Your task to perform on an android device: Add "usb-b" to the cart on bestbuy.com Image 0: 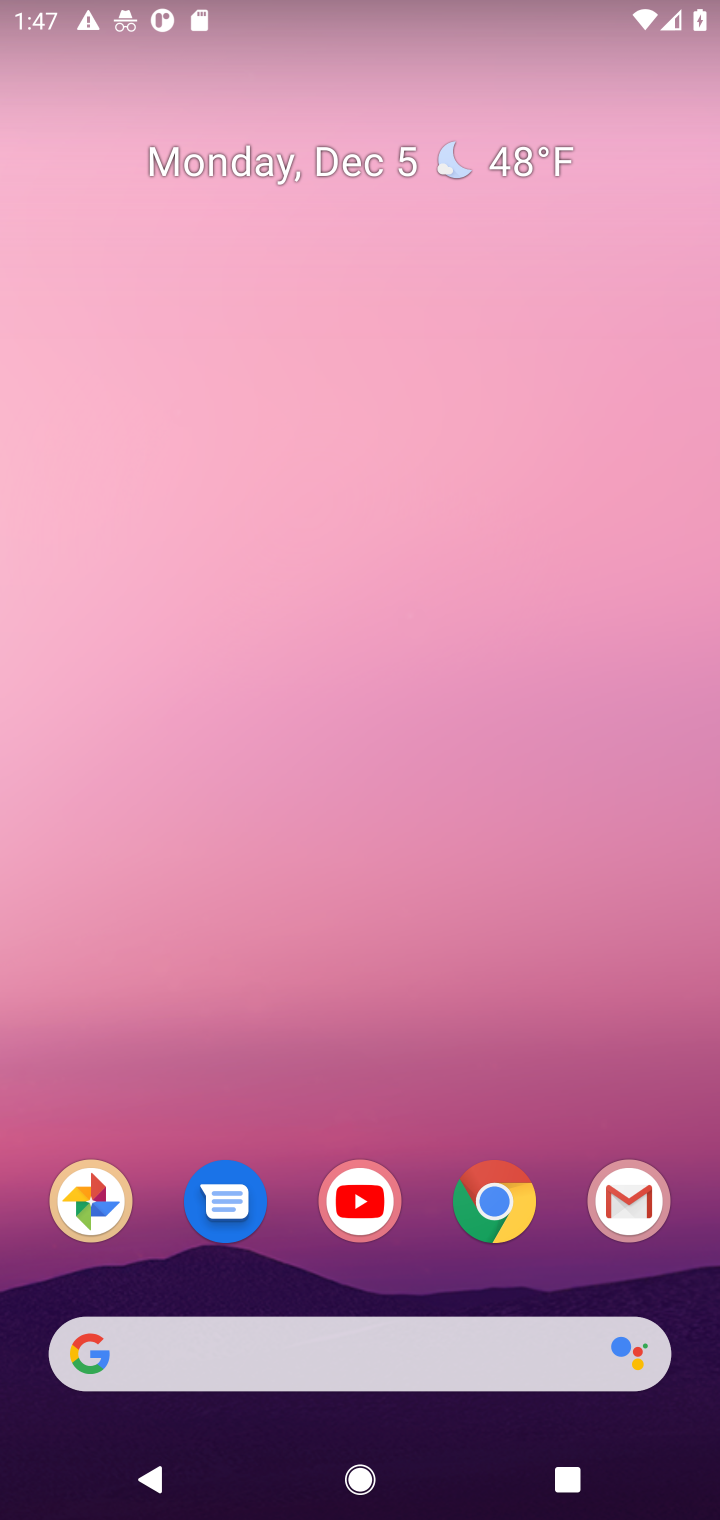
Step 0: click (478, 1198)
Your task to perform on an android device: Add "usb-b" to the cart on bestbuy.com Image 1: 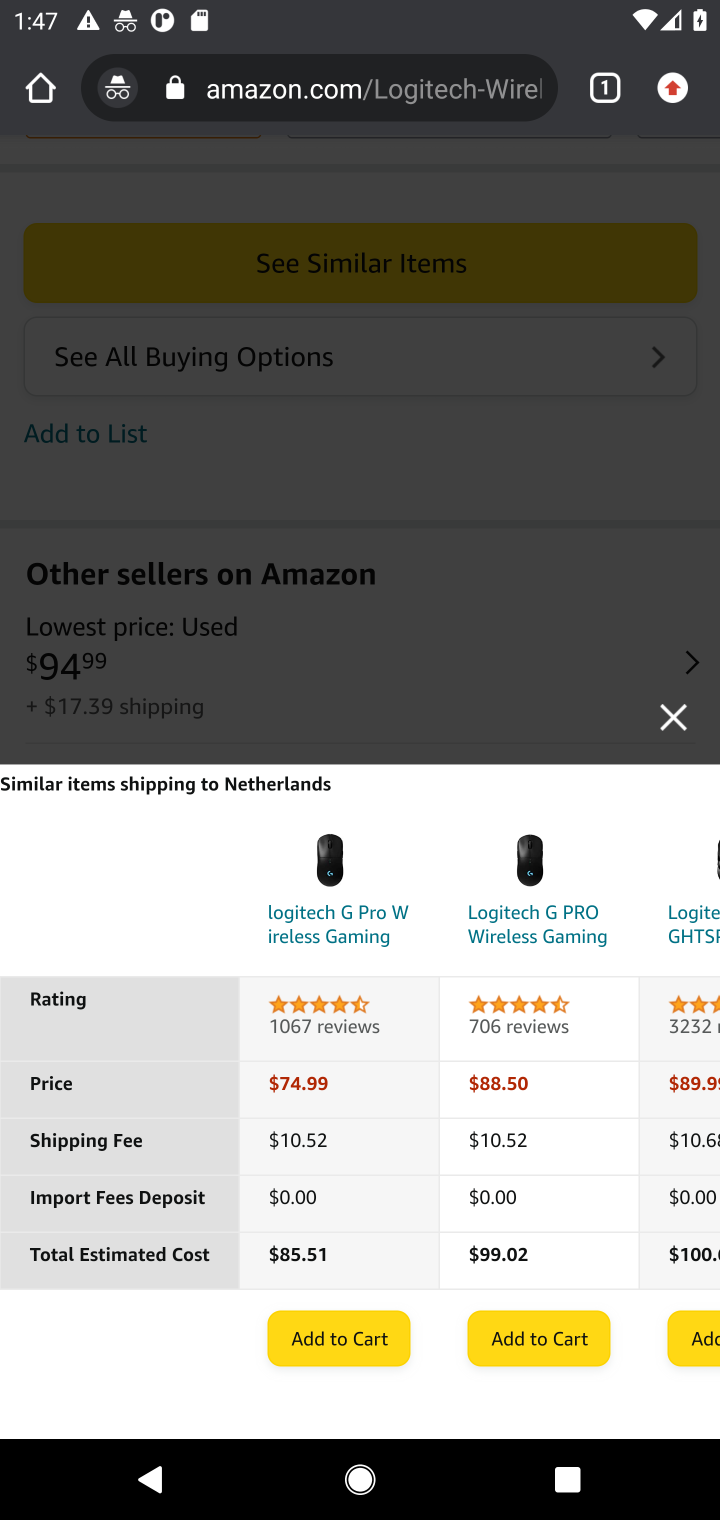
Step 1: click (469, 75)
Your task to perform on an android device: Add "usb-b" to the cart on bestbuy.com Image 2: 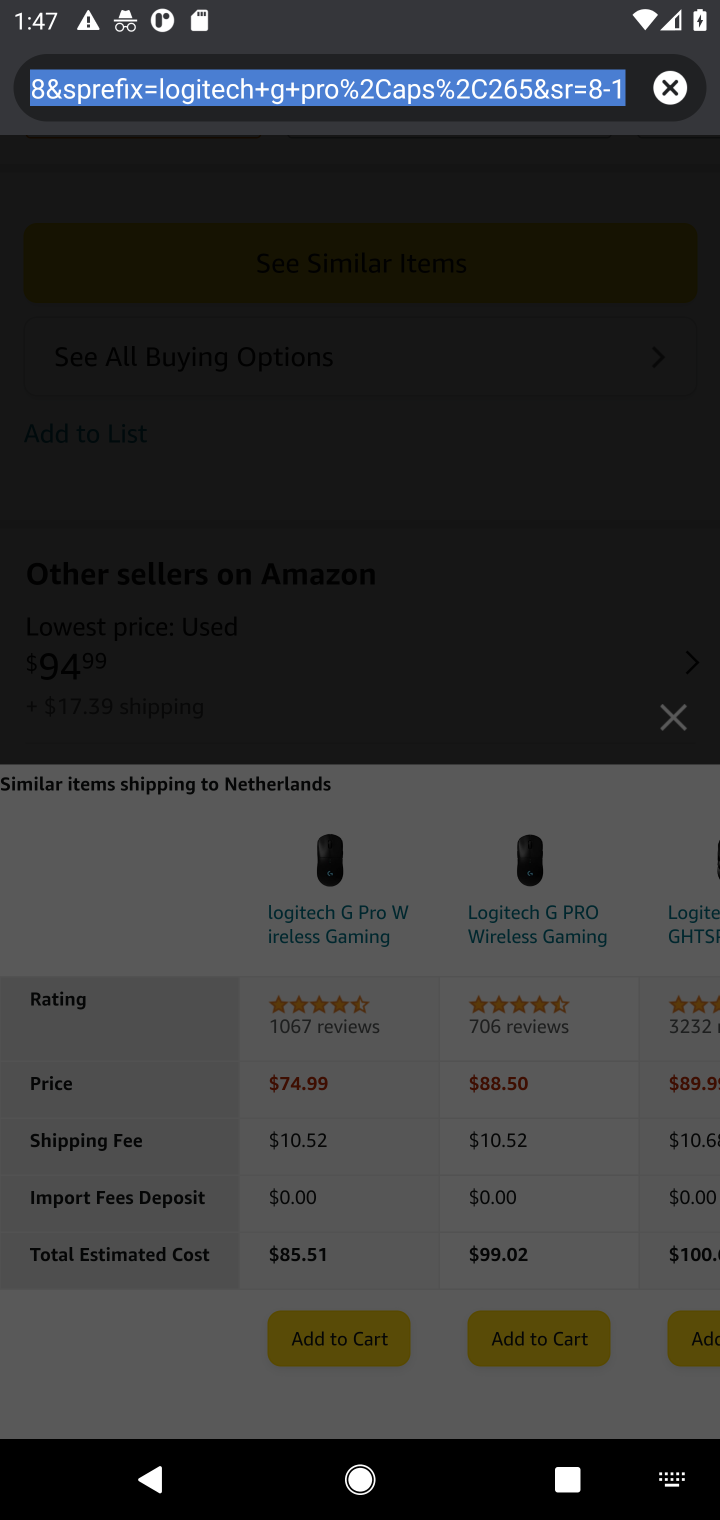
Step 2: click (678, 93)
Your task to perform on an android device: Add "usb-b" to the cart on bestbuy.com Image 3: 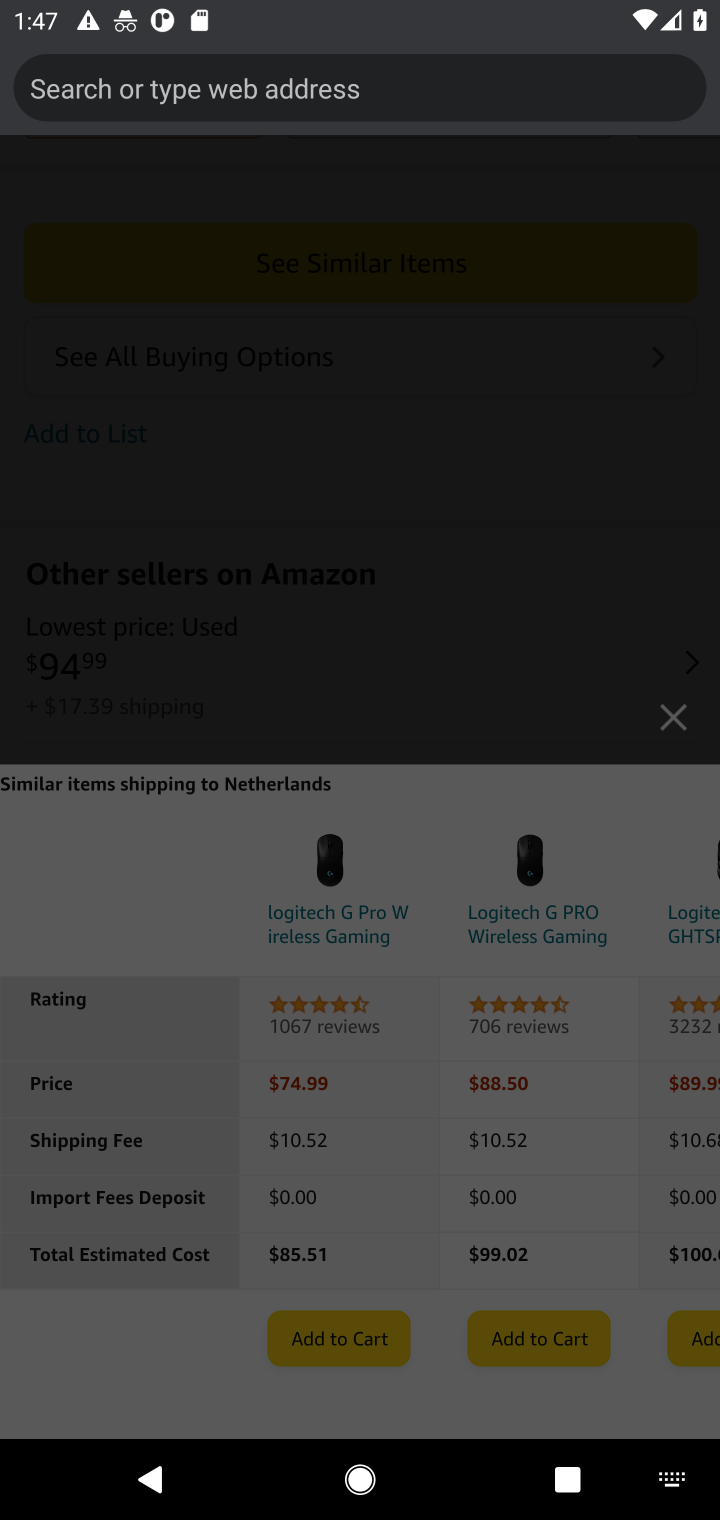
Step 3: type "bestbuy.com"
Your task to perform on an android device: Add "usb-b" to the cart on bestbuy.com Image 4: 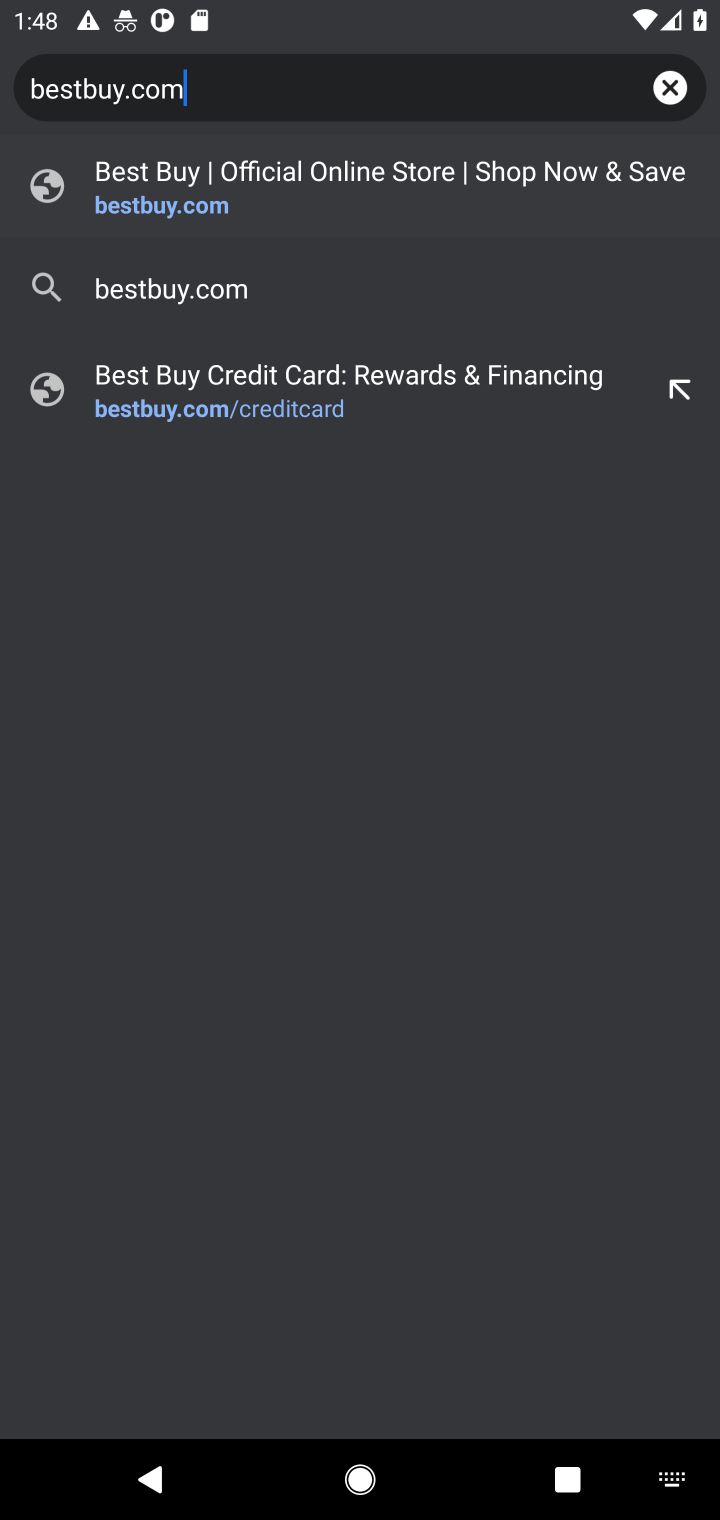
Step 4: click (171, 276)
Your task to perform on an android device: Add "usb-b" to the cart on bestbuy.com Image 5: 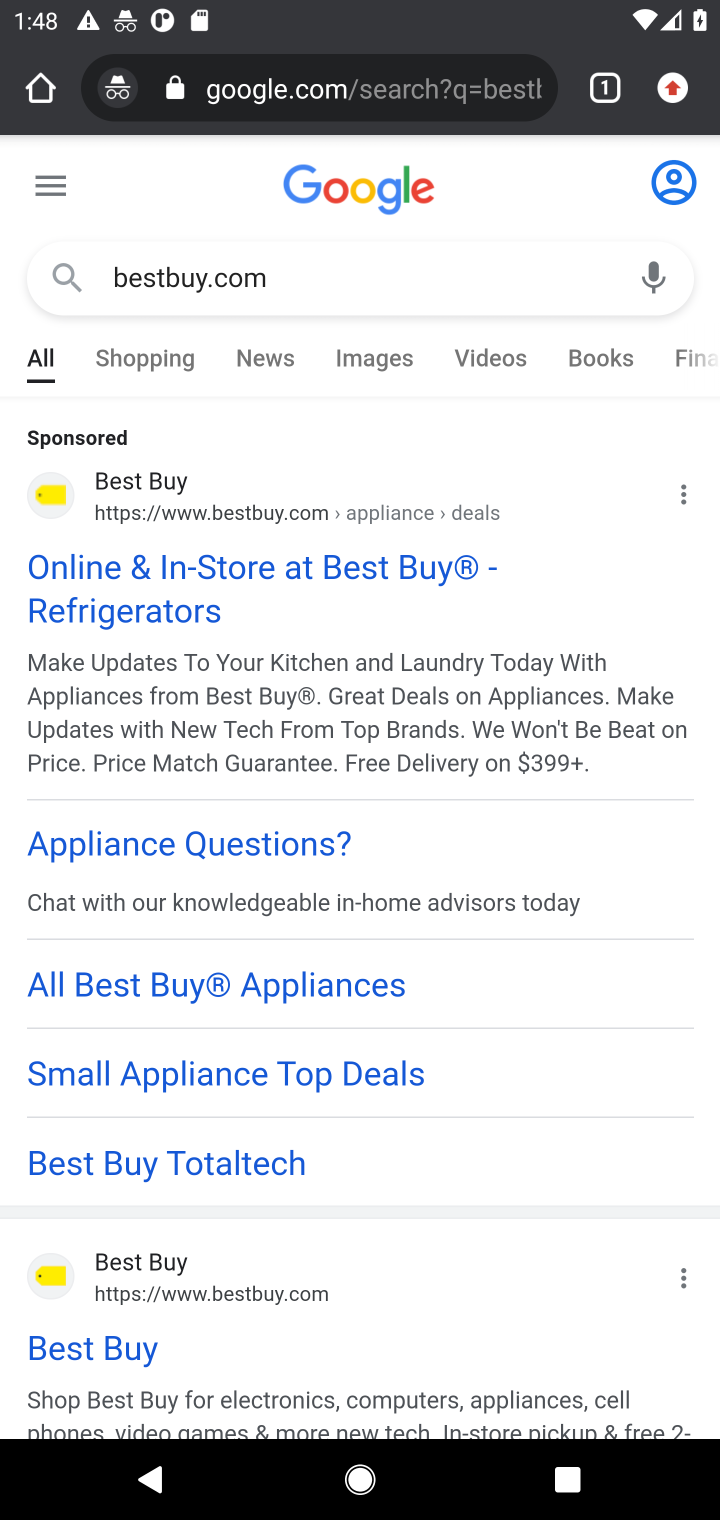
Step 5: click (168, 280)
Your task to perform on an android device: Add "usb-b" to the cart on bestbuy.com Image 6: 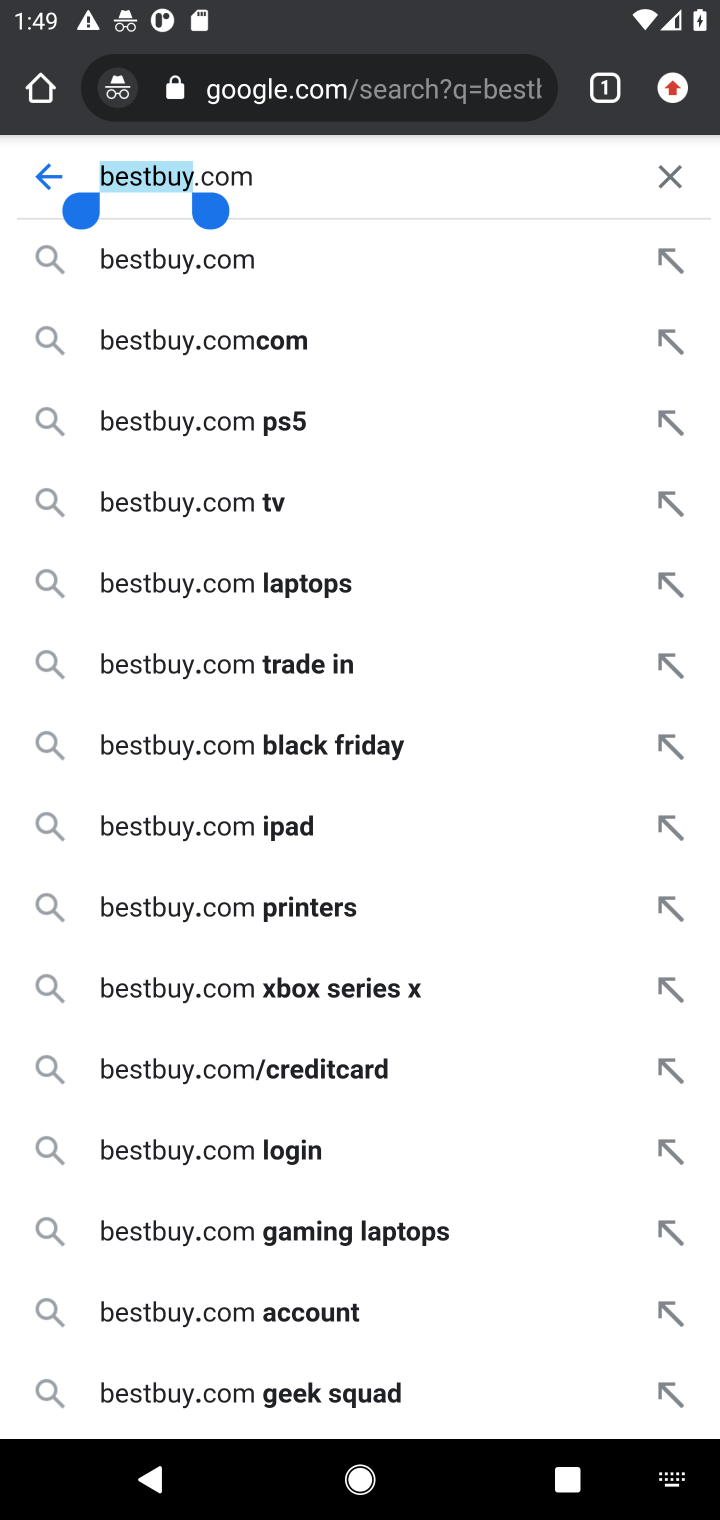
Step 6: click (165, 580)
Your task to perform on an android device: Add "usb-b" to the cart on bestbuy.com Image 7: 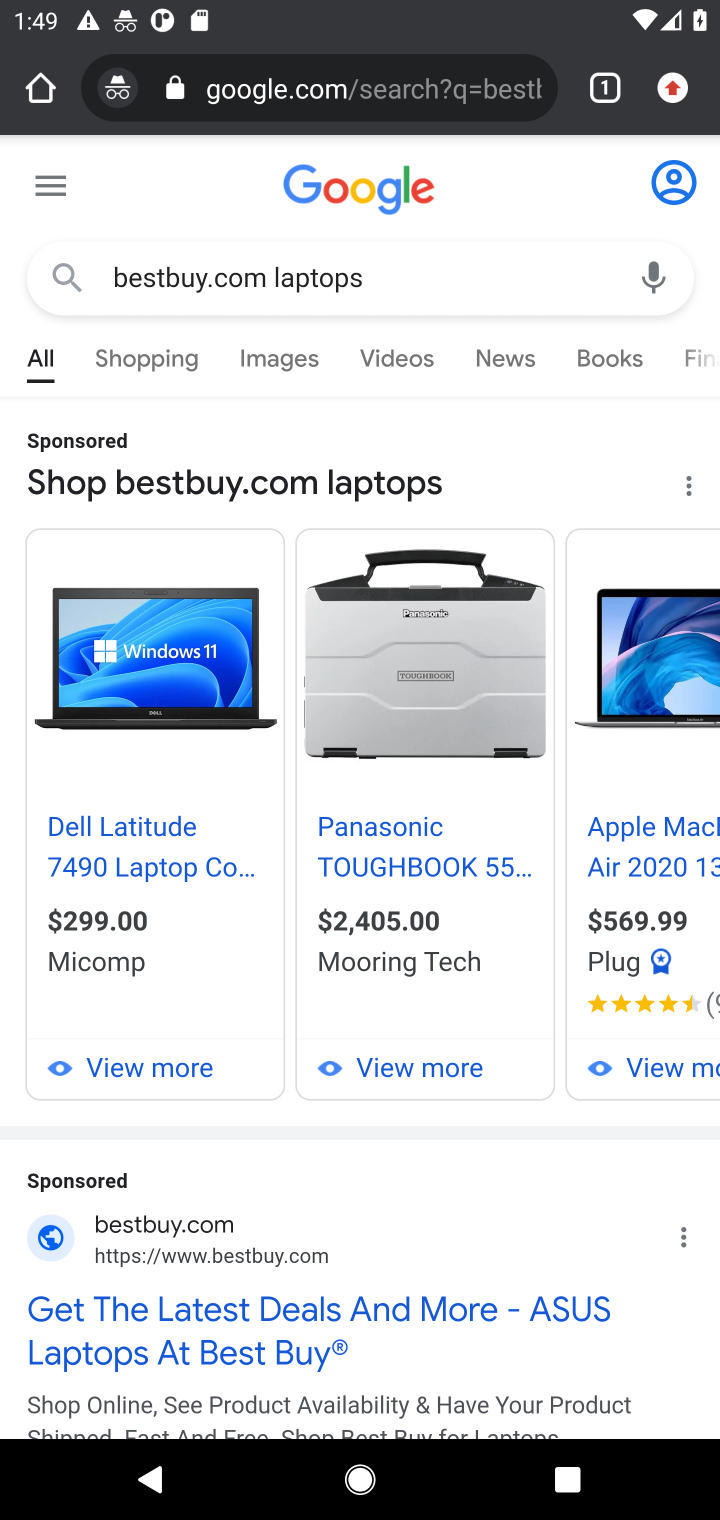
Step 7: click (276, 1340)
Your task to perform on an android device: Add "usb-b" to the cart on bestbuy.com Image 8: 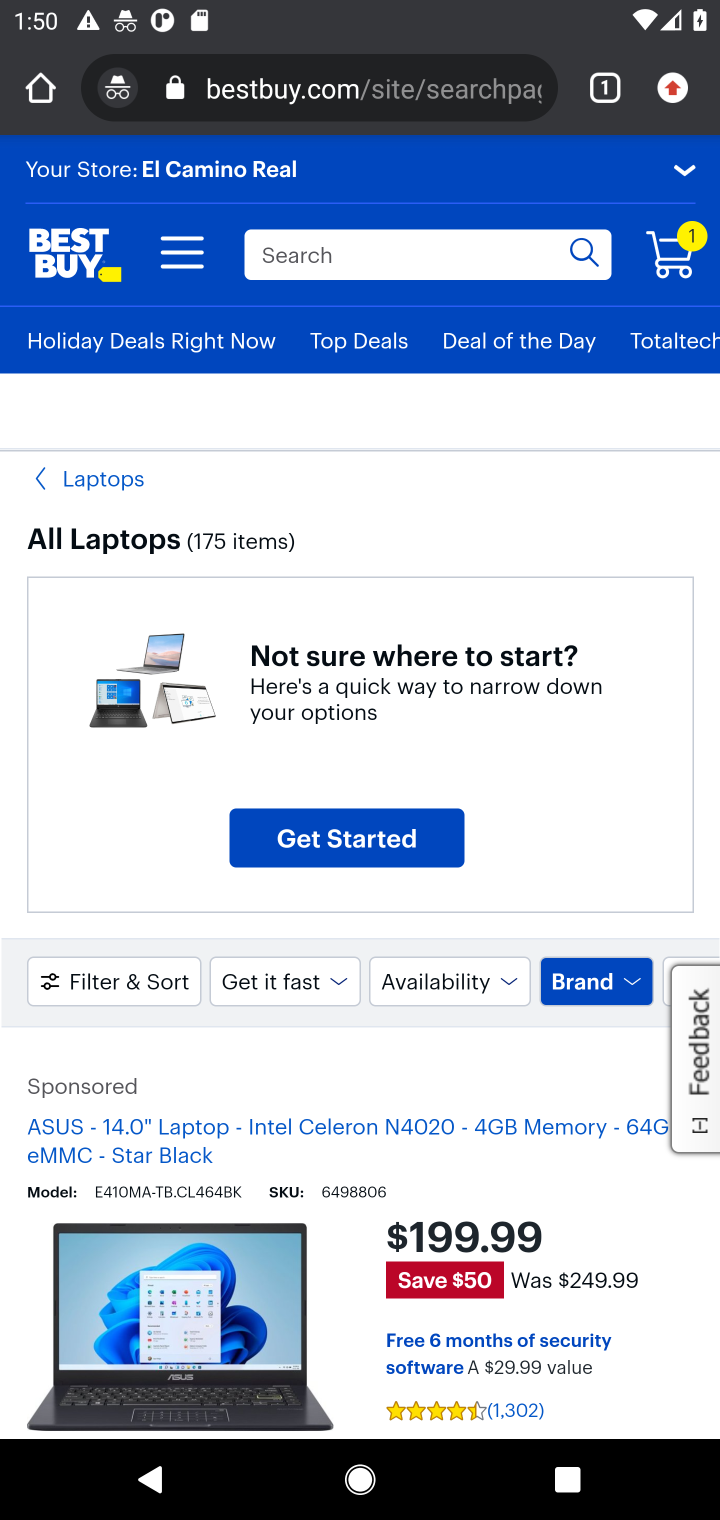
Step 8: click (322, 259)
Your task to perform on an android device: Add "usb-b" to the cart on bestbuy.com Image 9: 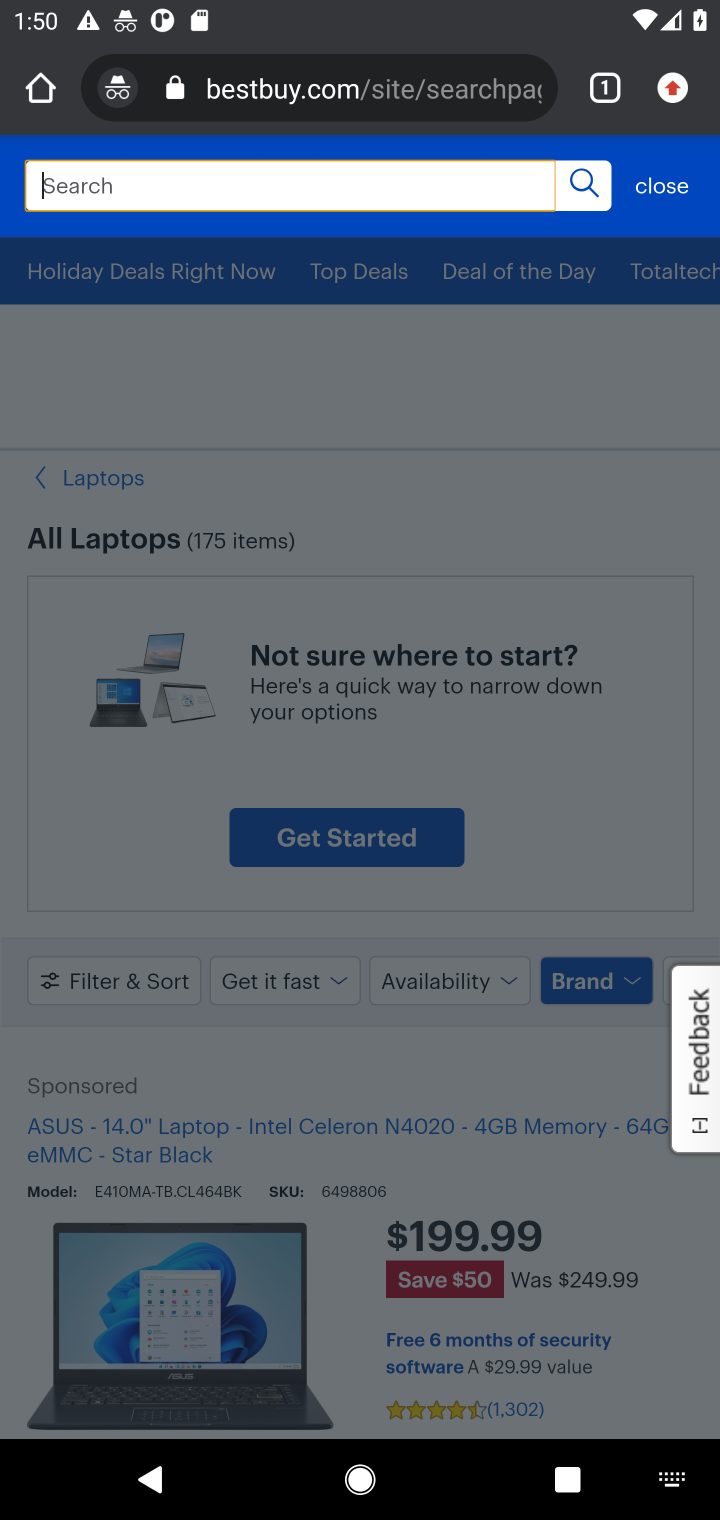
Step 9: type "usb-b"
Your task to perform on an android device: Add "usb-b" to the cart on bestbuy.com Image 10: 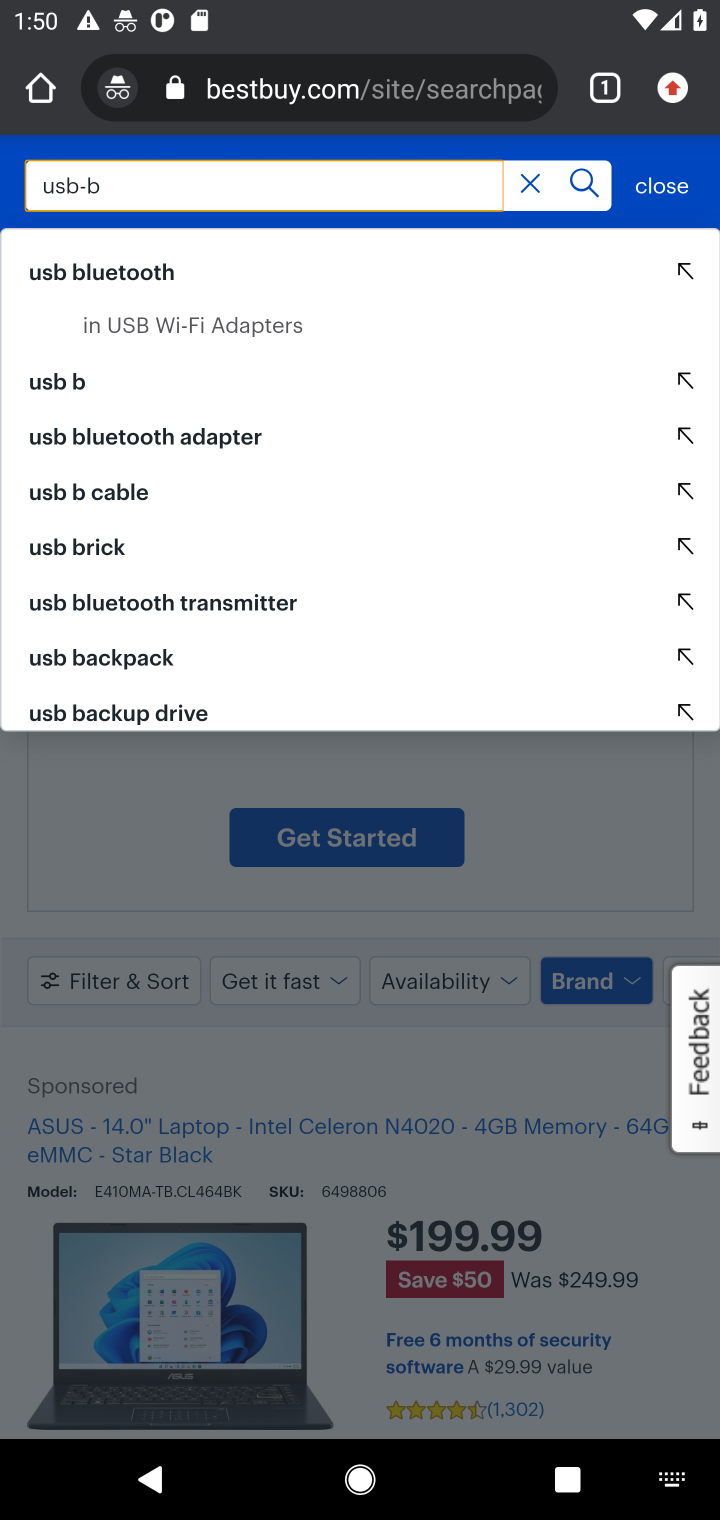
Step 10: click (590, 182)
Your task to perform on an android device: Add "usb-b" to the cart on bestbuy.com Image 11: 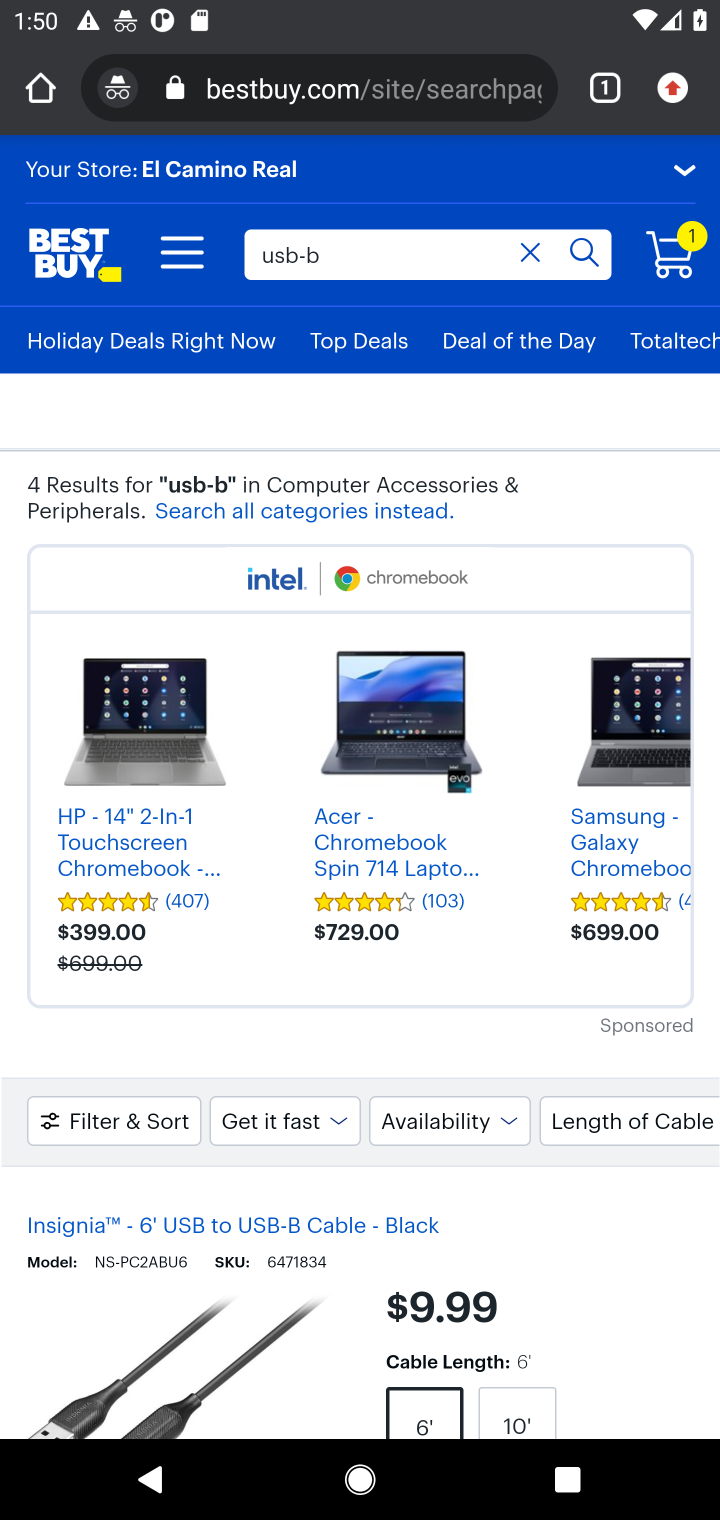
Step 11: drag from (543, 1163) to (463, 336)
Your task to perform on an android device: Add "usb-b" to the cart on bestbuy.com Image 12: 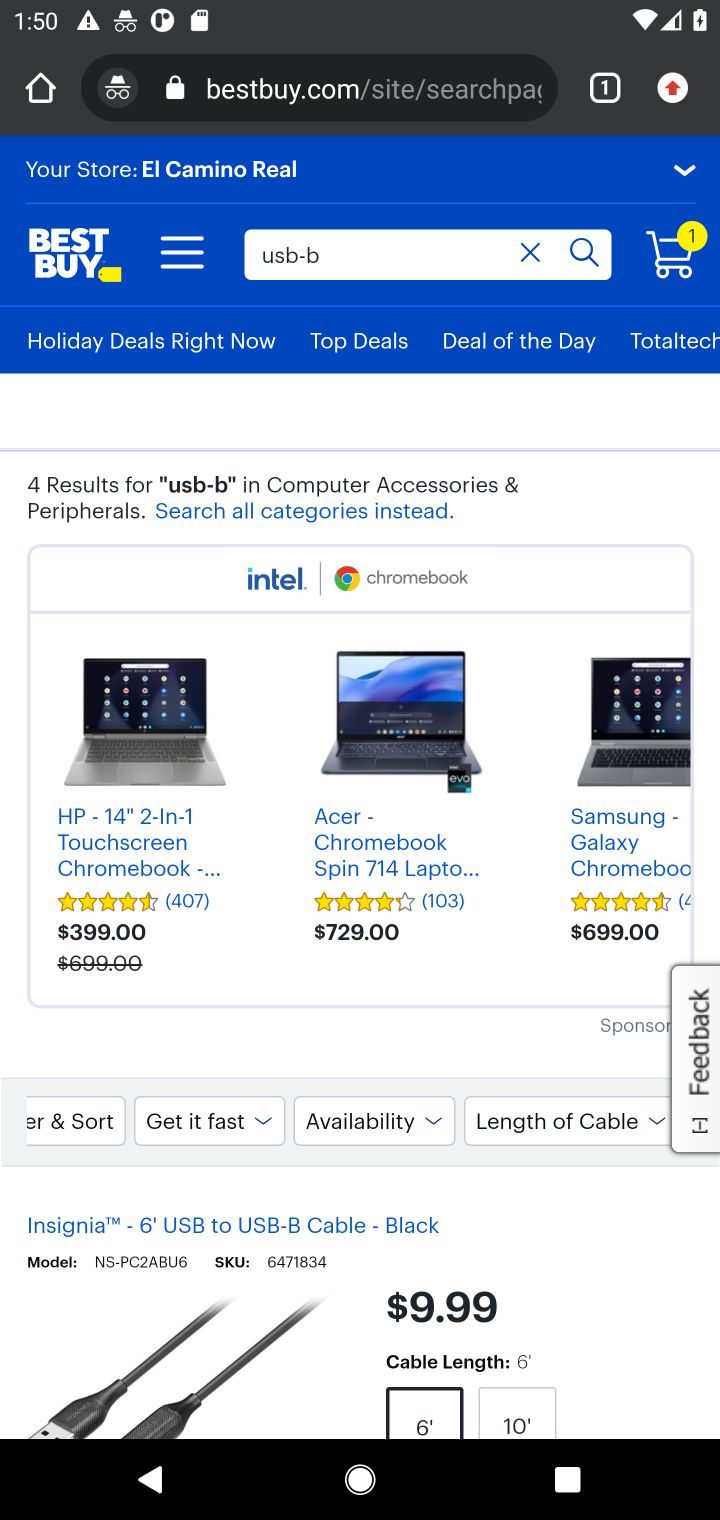
Step 12: drag from (520, 1255) to (378, 409)
Your task to perform on an android device: Add "usb-b" to the cart on bestbuy.com Image 13: 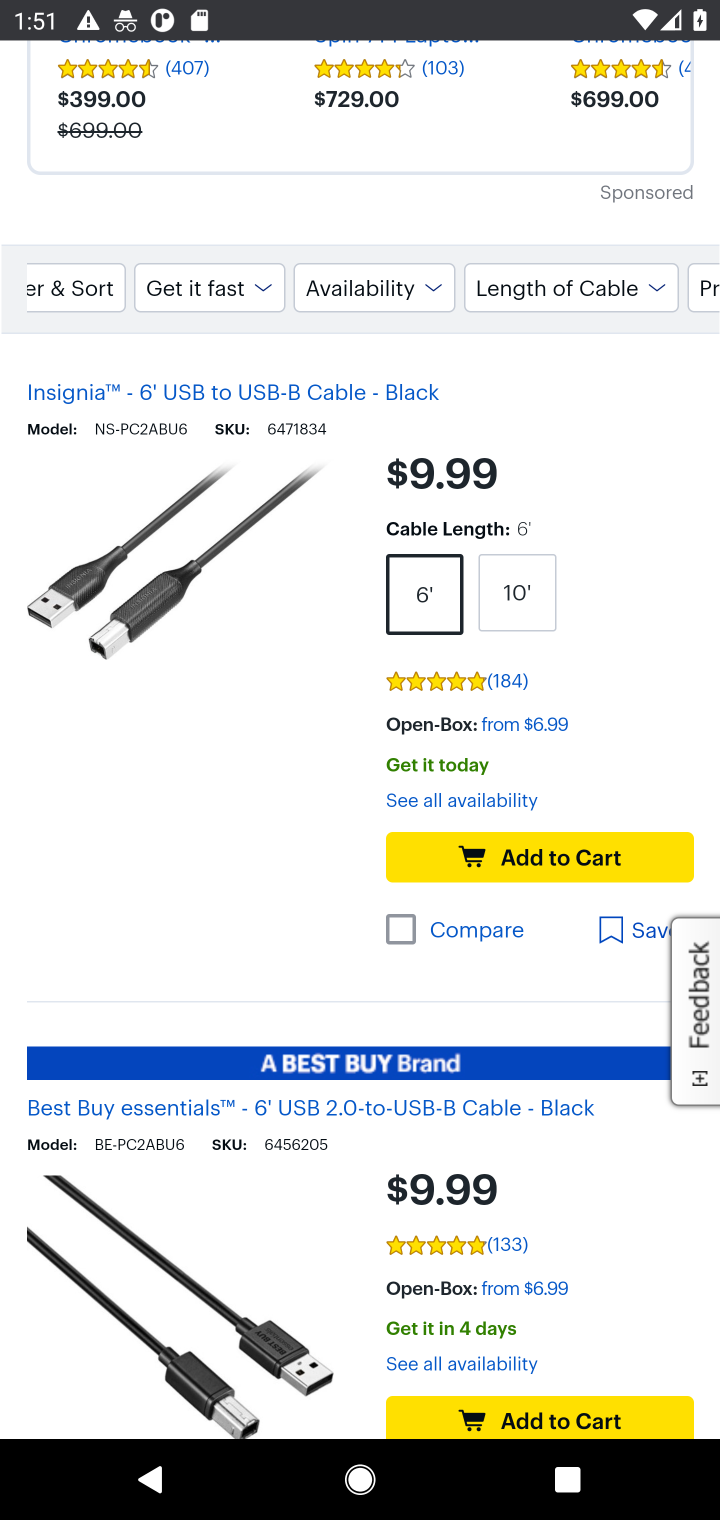
Step 13: click (501, 847)
Your task to perform on an android device: Add "usb-b" to the cart on bestbuy.com Image 14: 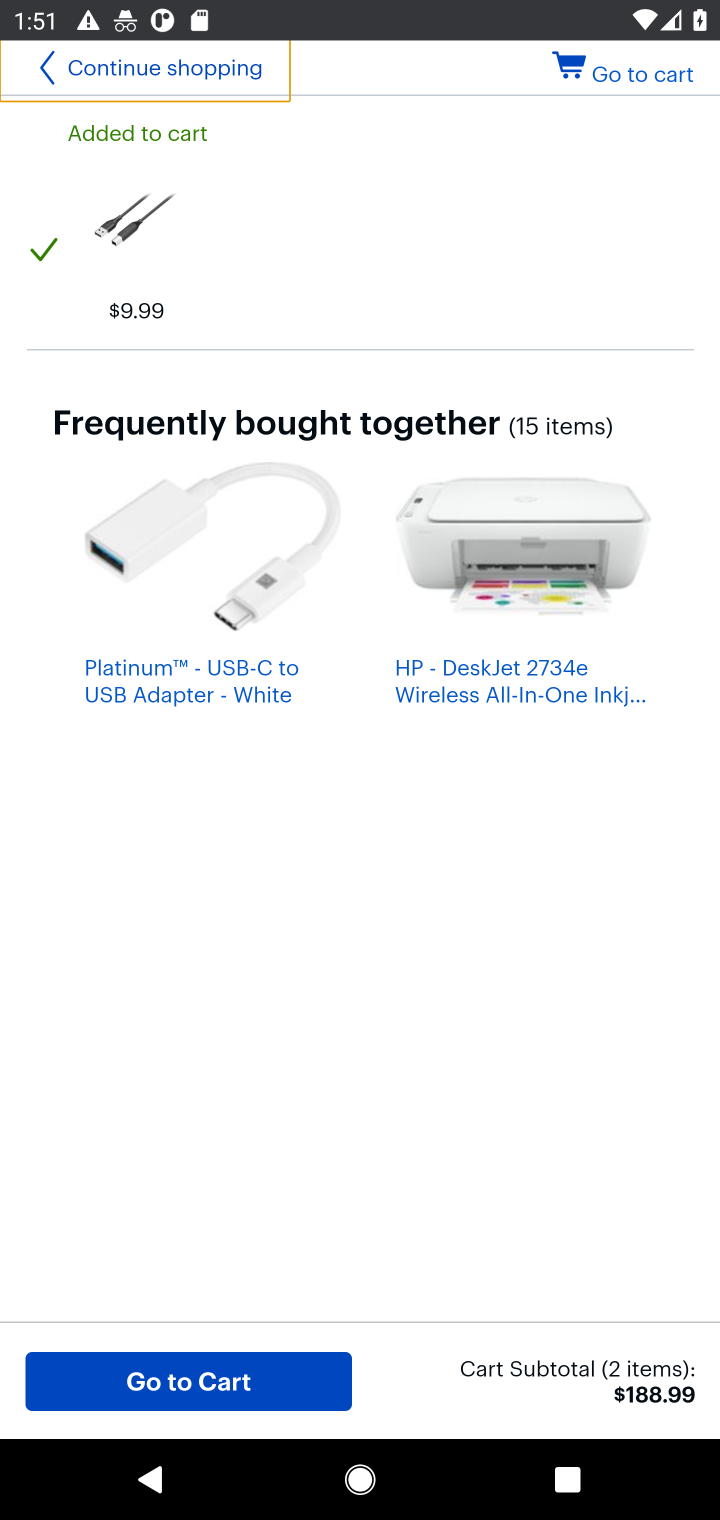
Step 14: task complete